Your task to perform on an android device: What's the weather? Image 0: 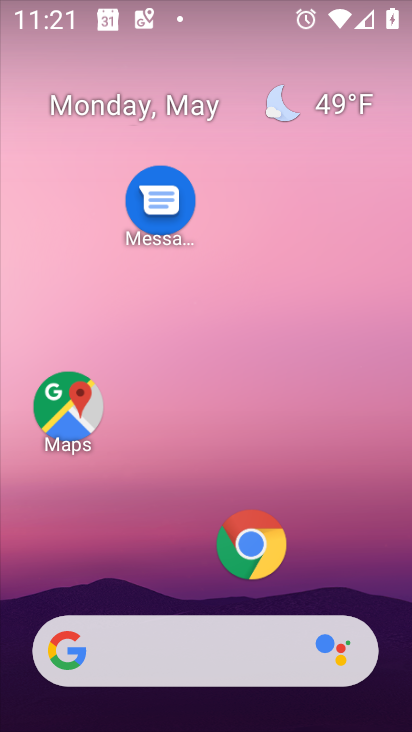
Step 0: drag from (181, 598) to (129, 10)
Your task to perform on an android device: What's the weather? Image 1: 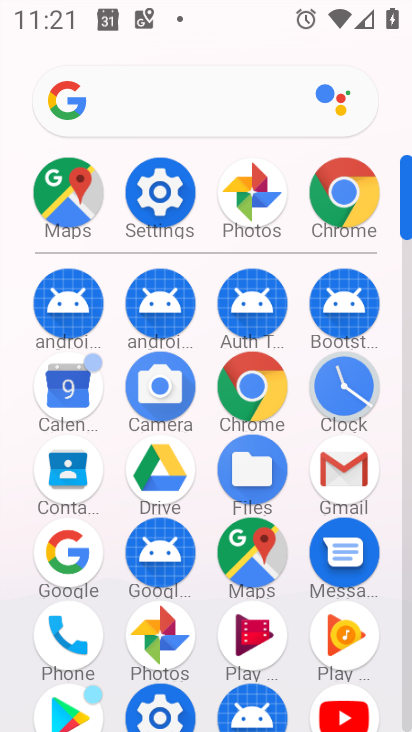
Step 1: click (156, 109)
Your task to perform on an android device: What's the weather? Image 2: 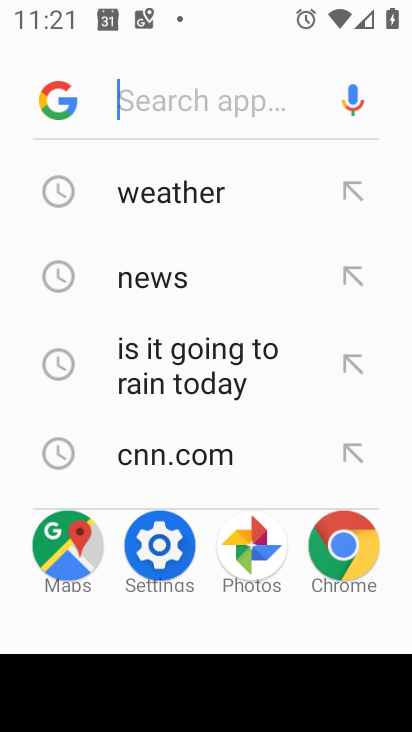
Step 2: type "what's the weather"
Your task to perform on an android device: What's the weather? Image 3: 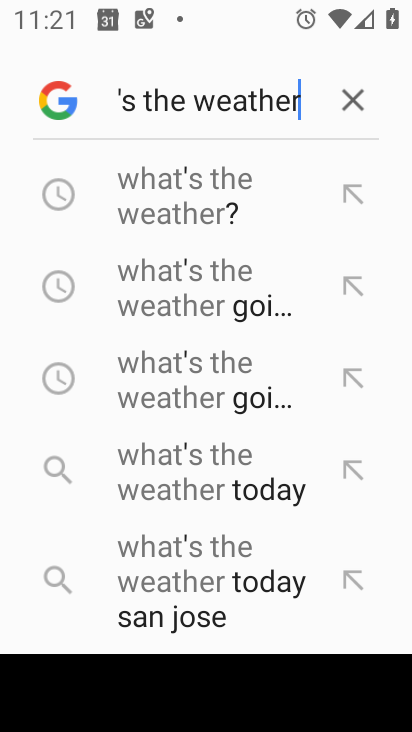
Step 3: click (151, 213)
Your task to perform on an android device: What's the weather? Image 4: 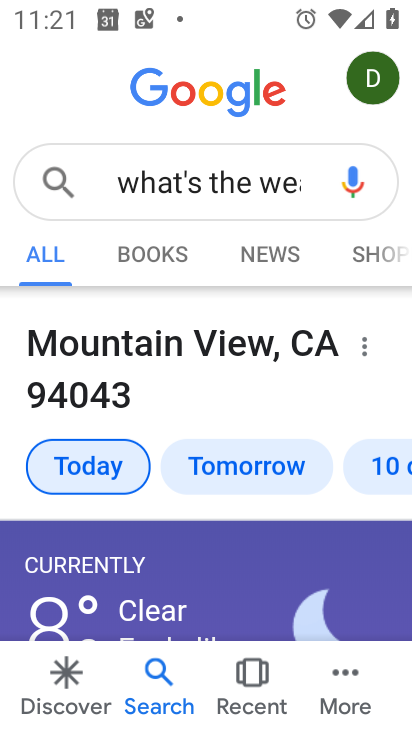
Step 4: task complete